Your task to perform on an android device: Open internet settings Image 0: 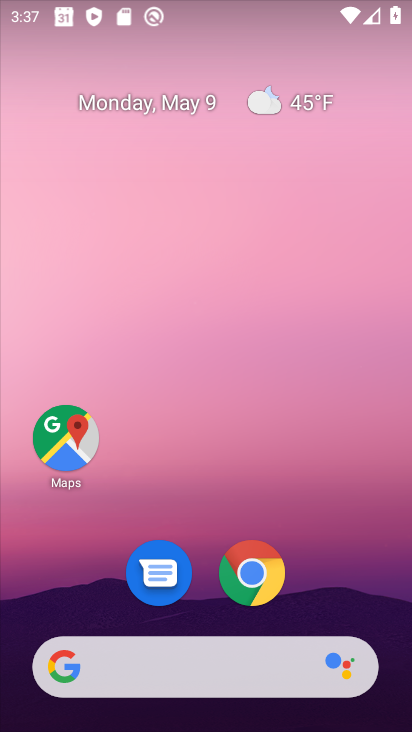
Step 0: drag from (362, 602) to (367, 5)
Your task to perform on an android device: Open internet settings Image 1: 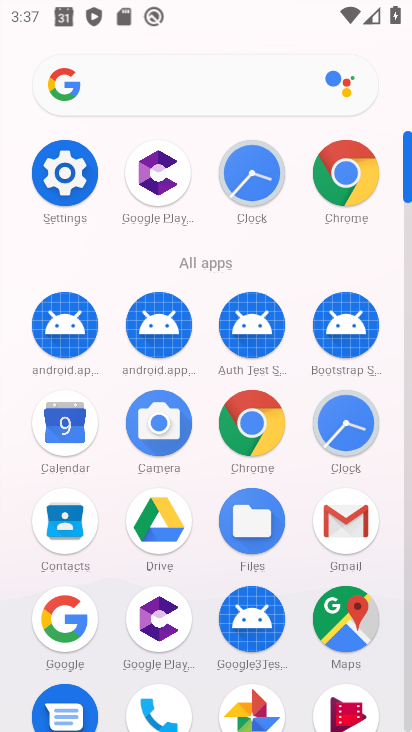
Step 1: click (62, 171)
Your task to perform on an android device: Open internet settings Image 2: 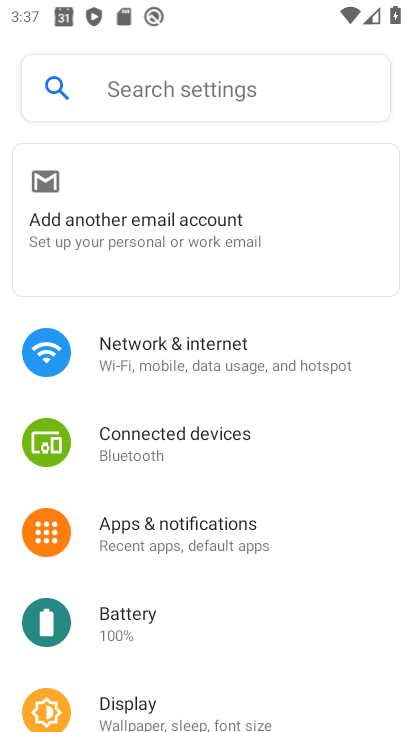
Step 2: click (197, 355)
Your task to perform on an android device: Open internet settings Image 3: 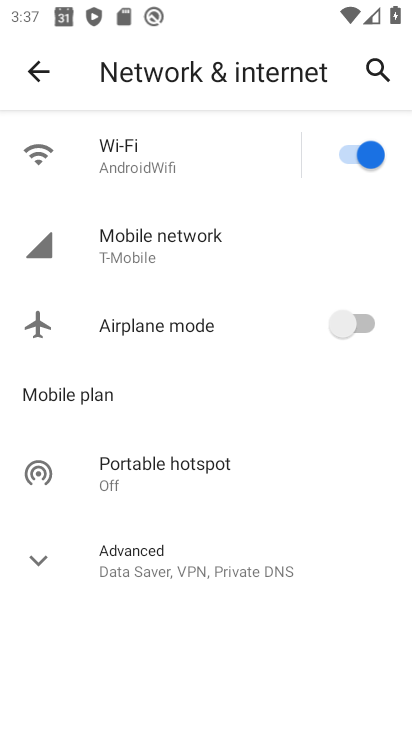
Step 3: click (36, 564)
Your task to perform on an android device: Open internet settings Image 4: 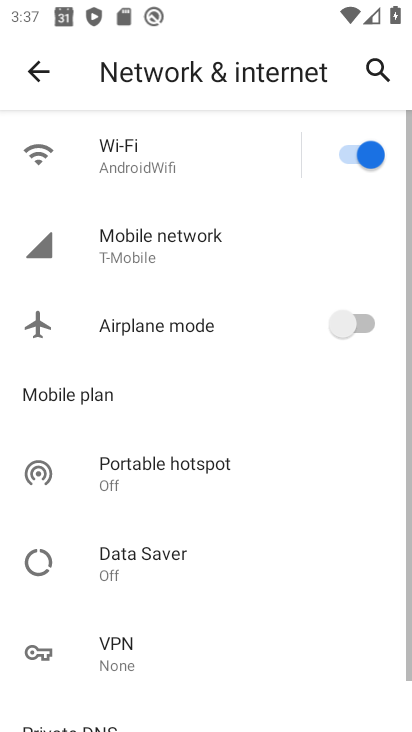
Step 4: task complete